Your task to perform on an android device: set the stopwatch Image 0: 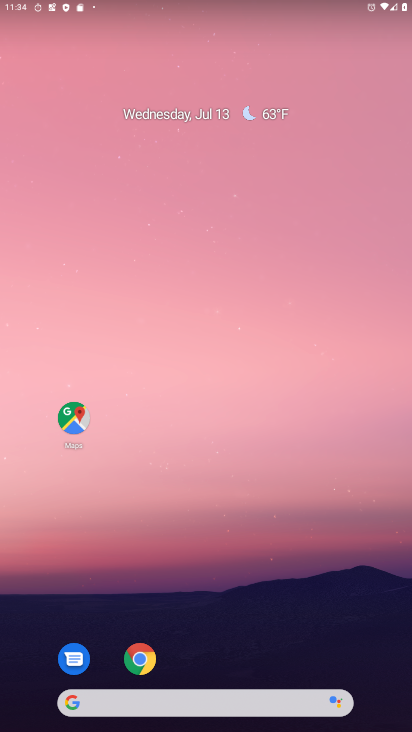
Step 0: drag from (258, 586) to (212, 154)
Your task to perform on an android device: set the stopwatch Image 1: 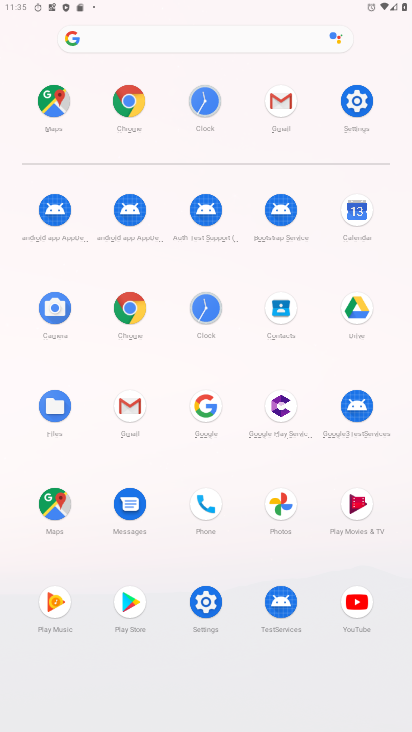
Step 1: click (207, 108)
Your task to perform on an android device: set the stopwatch Image 2: 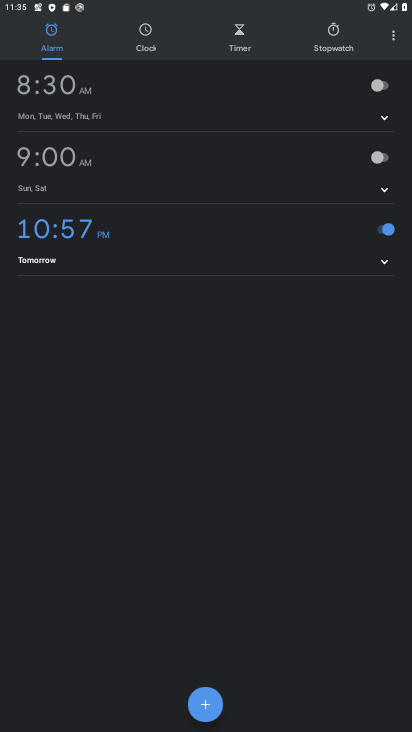
Step 2: click (327, 32)
Your task to perform on an android device: set the stopwatch Image 3: 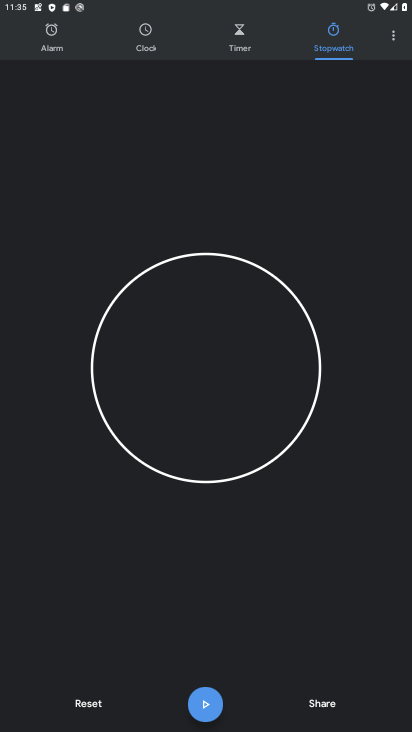
Step 3: task complete